Your task to perform on an android device: Search for shimano brake pads on Walmart Image 0: 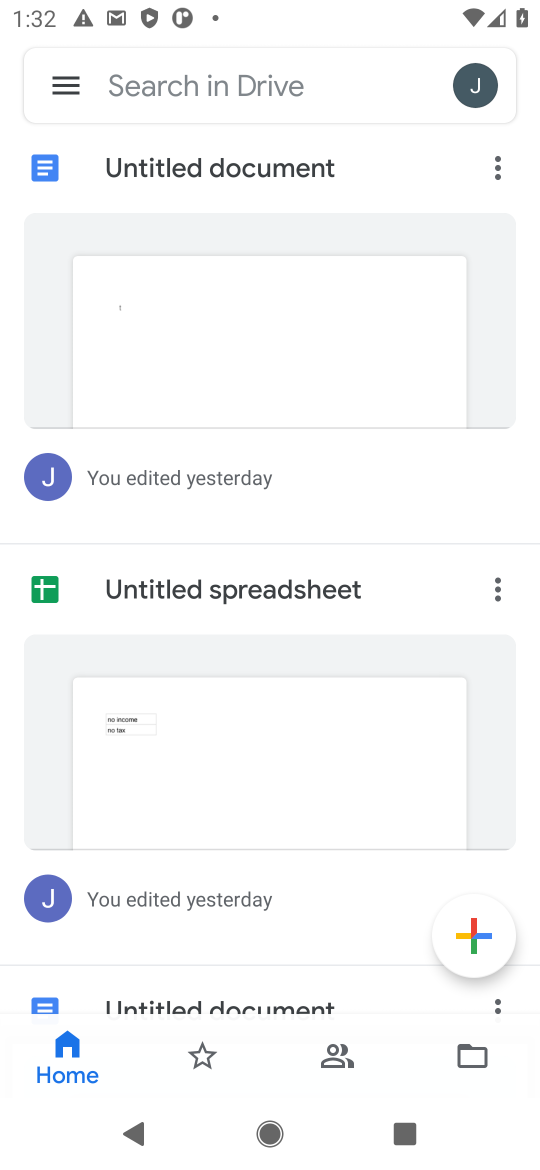
Step 0: press home button
Your task to perform on an android device: Search for shimano brake pads on Walmart Image 1: 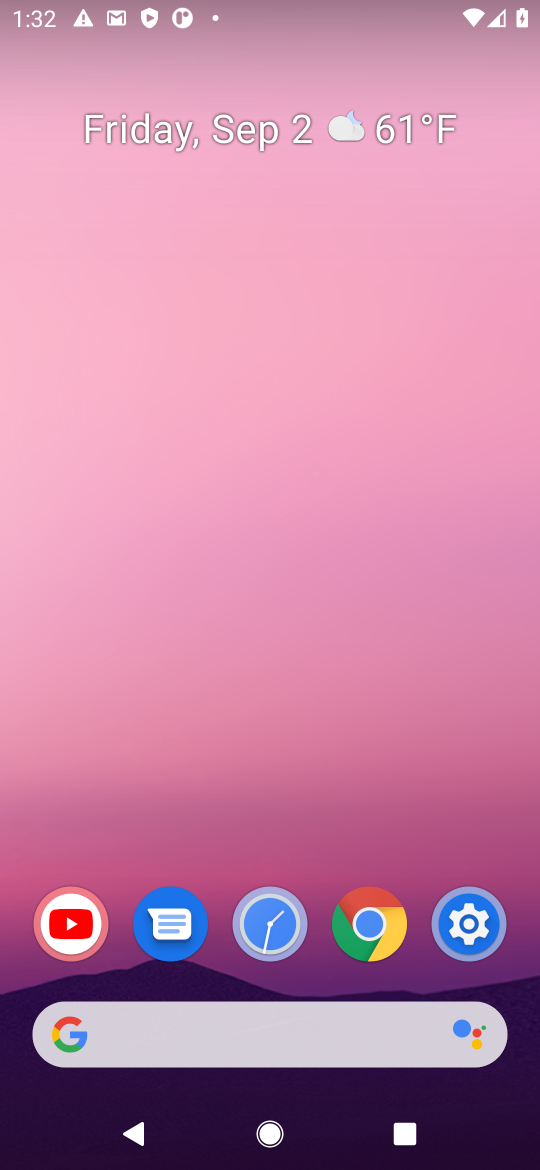
Step 1: click (367, 1020)
Your task to perform on an android device: Search for shimano brake pads on Walmart Image 2: 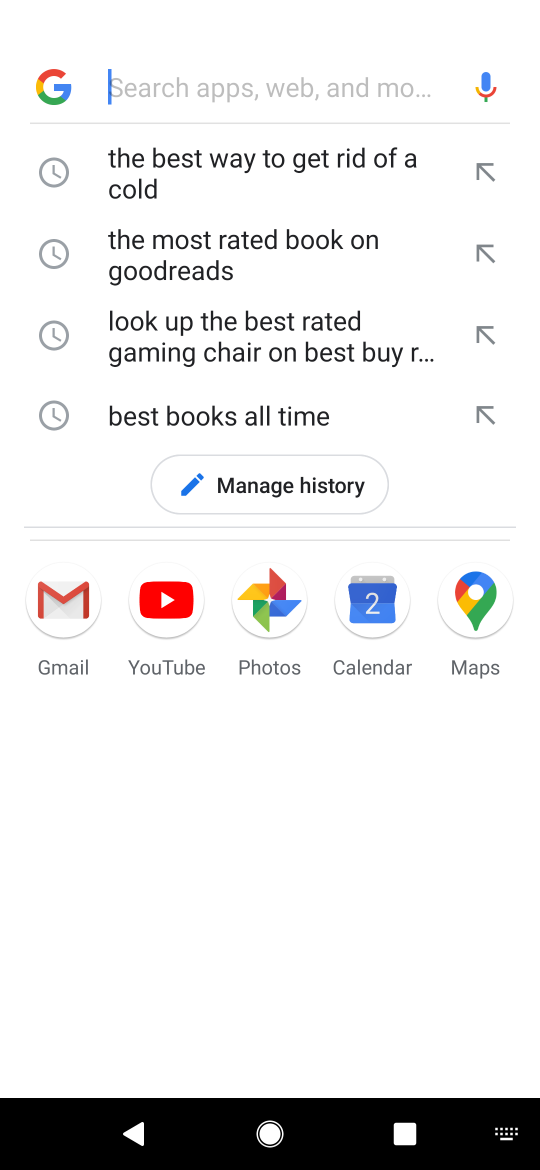
Step 2: press enter
Your task to perform on an android device: Search for shimano brake pads on Walmart Image 3: 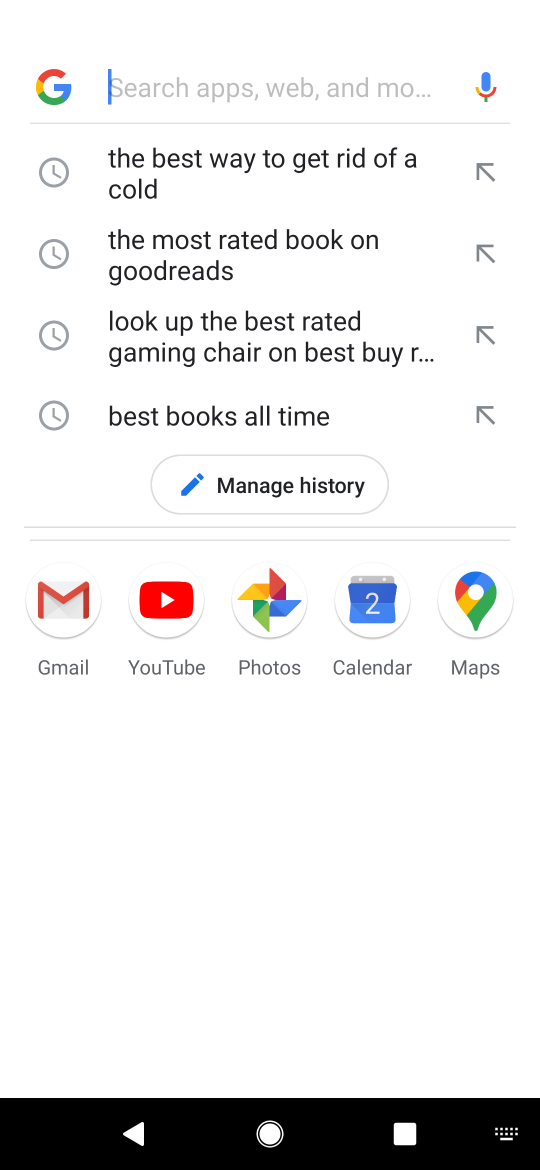
Step 3: type "walmart"
Your task to perform on an android device: Search for shimano brake pads on Walmart Image 4: 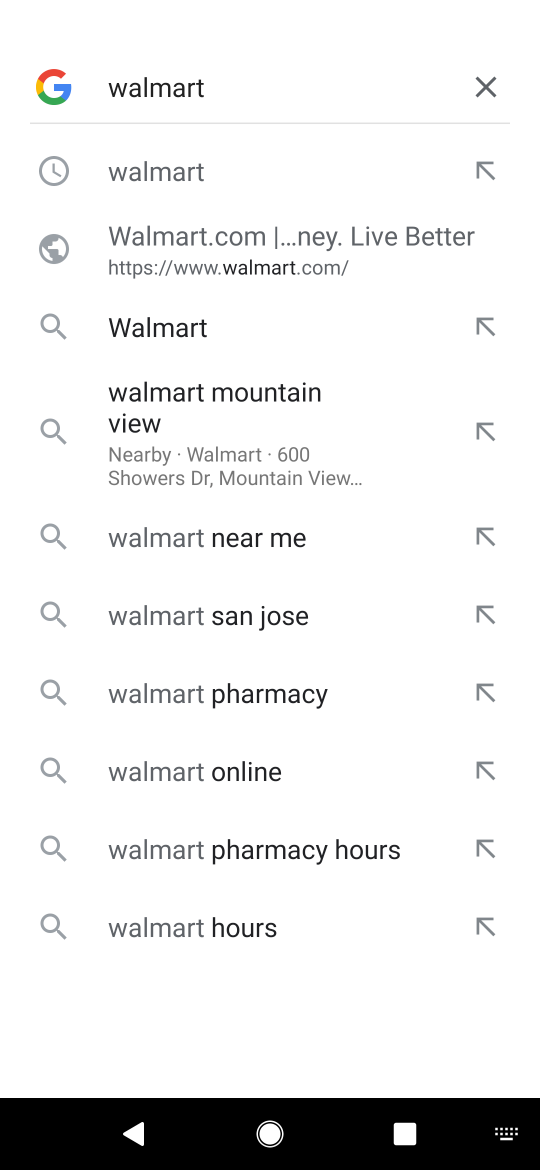
Step 4: click (233, 163)
Your task to perform on an android device: Search for shimano brake pads on Walmart Image 5: 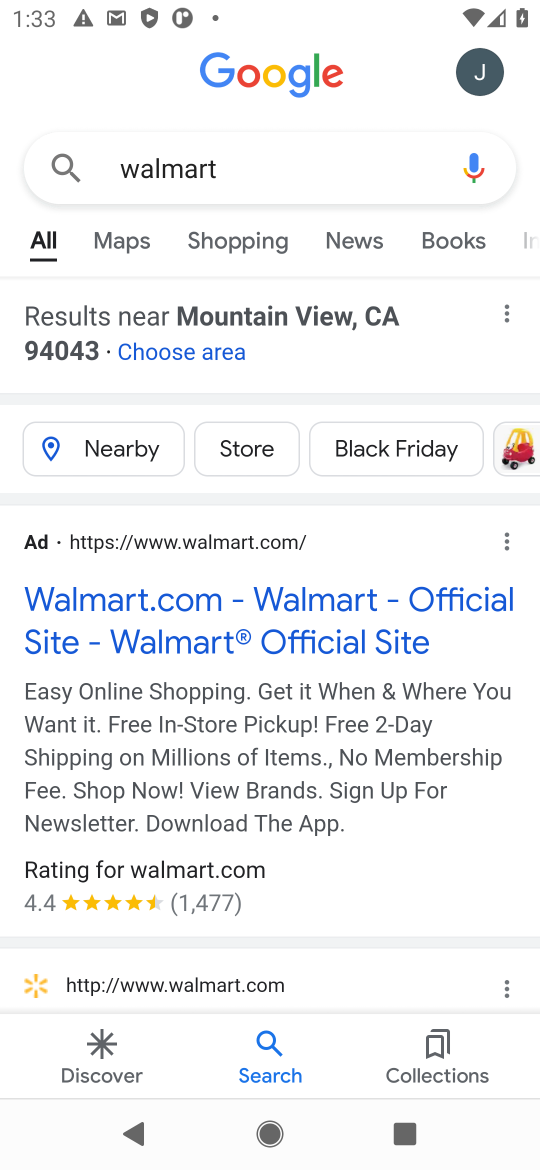
Step 5: click (259, 646)
Your task to perform on an android device: Search for shimano brake pads on Walmart Image 6: 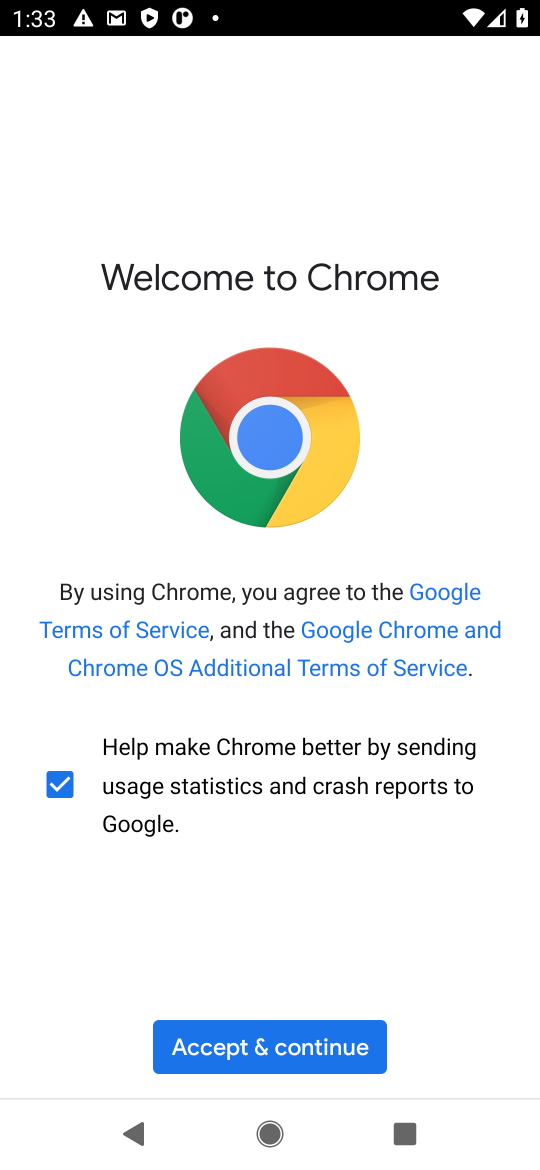
Step 6: click (292, 1046)
Your task to perform on an android device: Search for shimano brake pads on Walmart Image 7: 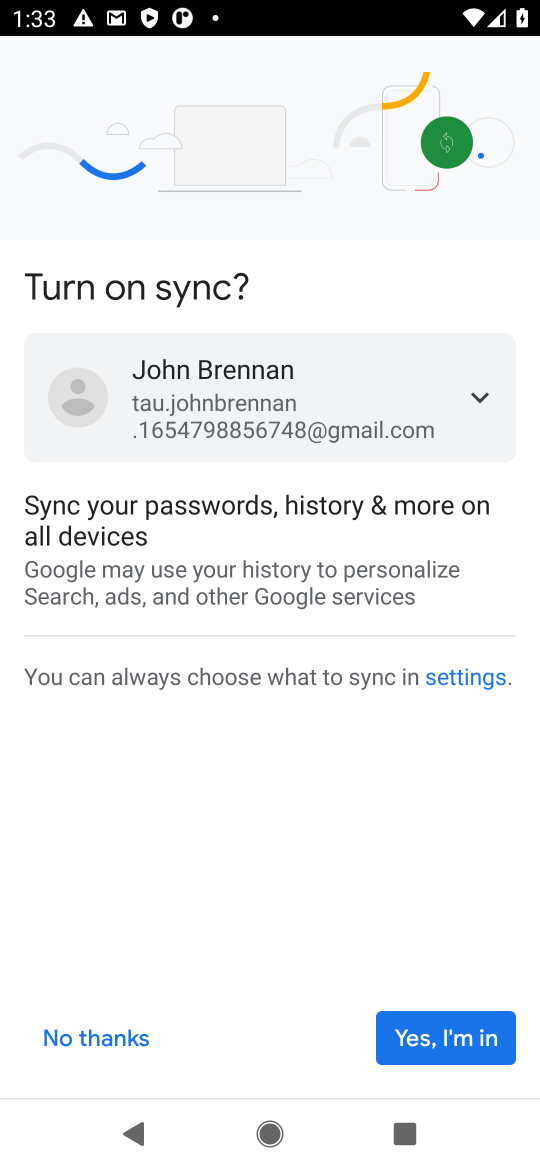
Step 7: click (428, 1038)
Your task to perform on an android device: Search for shimano brake pads on Walmart Image 8: 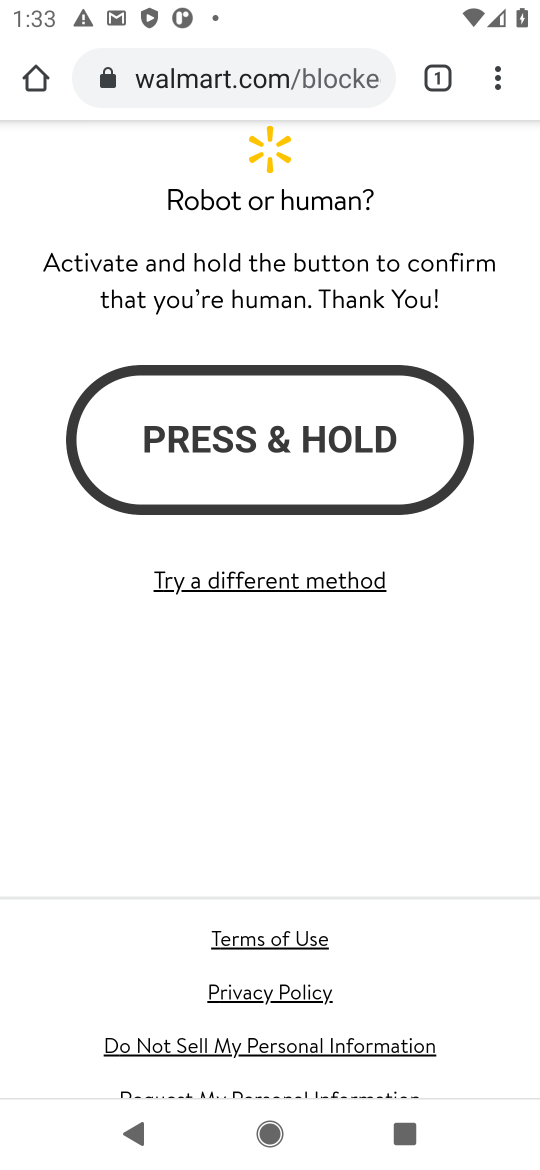
Step 8: click (380, 440)
Your task to perform on an android device: Search for shimano brake pads on Walmart Image 9: 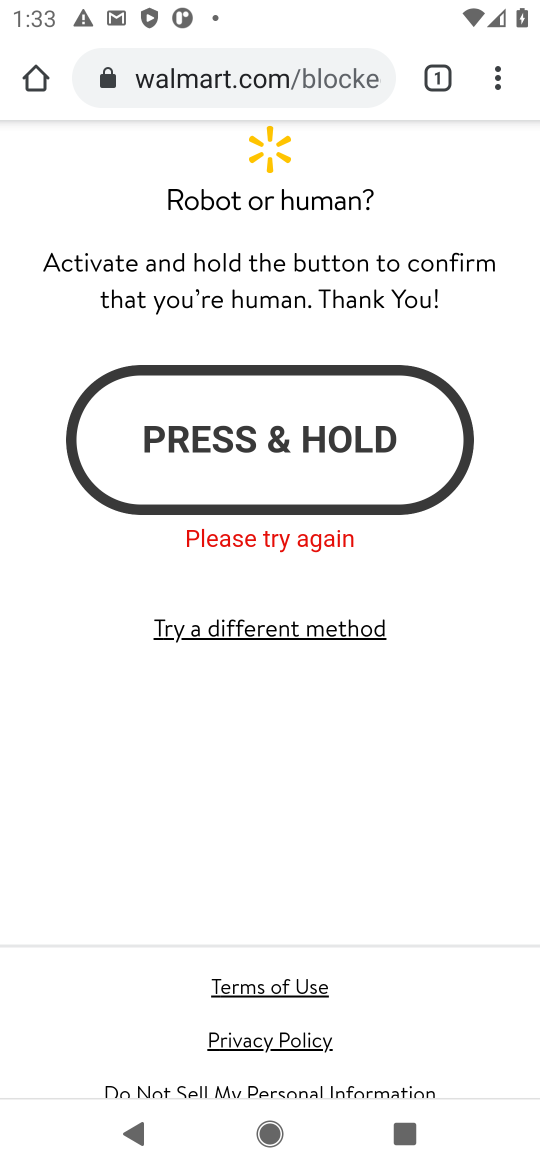
Step 9: task complete